Your task to perform on an android device: toggle priority inbox in the gmail app Image 0: 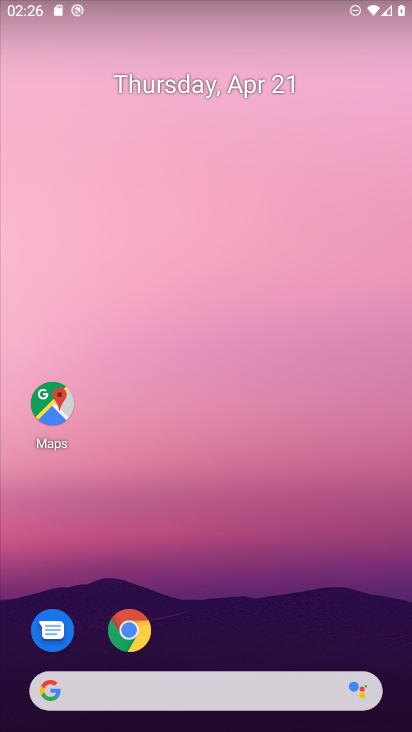
Step 0: drag from (210, 617) to (159, 170)
Your task to perform on an android device: toggle priority inbox in the gmail app Image 1: 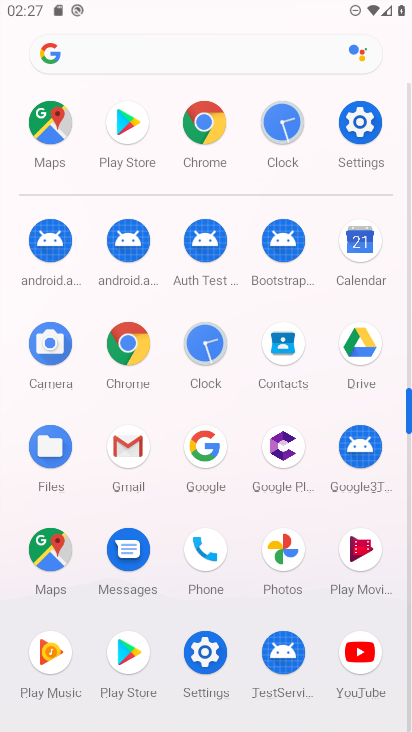
Step 1: click (127, 468)
Your task to perform on an android device: toggle priority inbox in the gmail app Image 2: 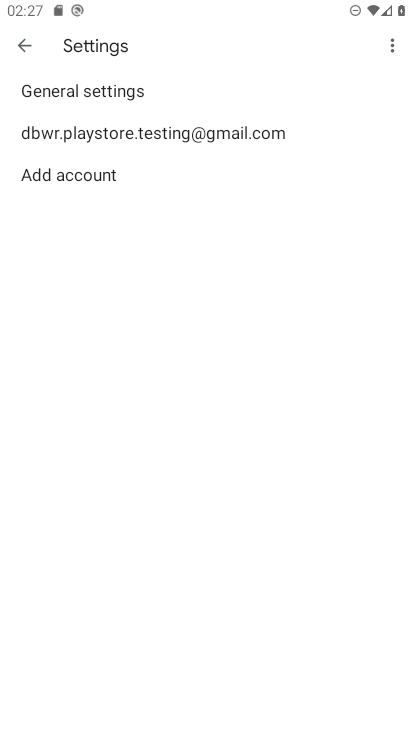
Step 2: click (107, 126)
Your task to perform on an android device: toggle priority inbox in the gmail app Image 3: 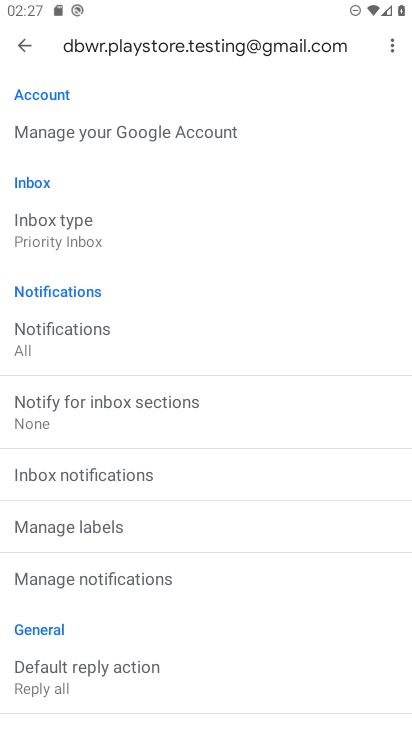
Step 3: click (139, 232)
Your task to perform on an android device: toggle priority inbox in the gmail app Image 4: 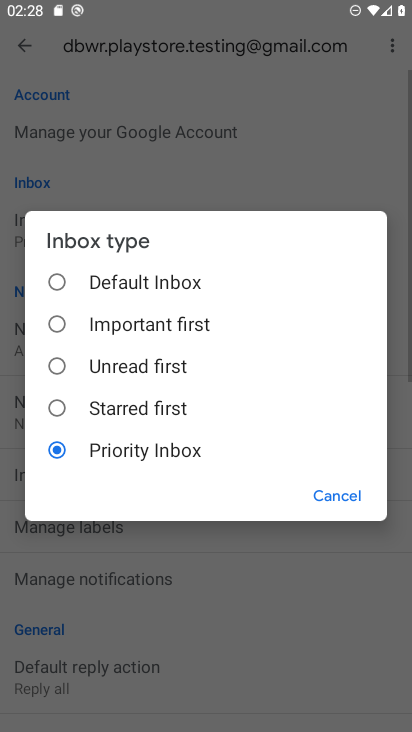
Step 4: click (183, 311)
Your task to perform on an android device: toggle priority inbox in the gmail app Image 5: 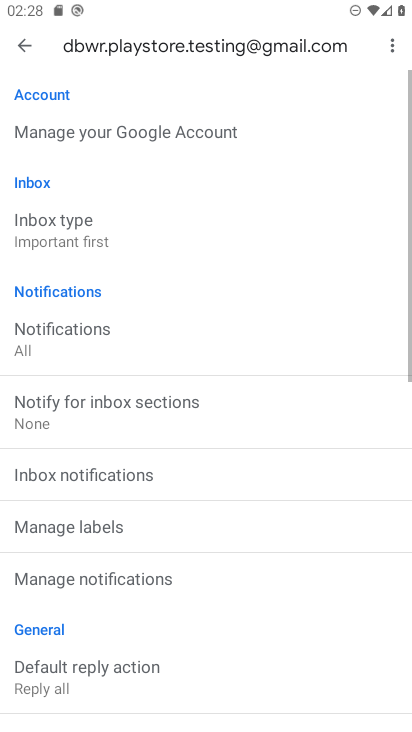
Step 5: task complete